Your task to perform on an android device: move an email to a new category in the gmail app Image 0: 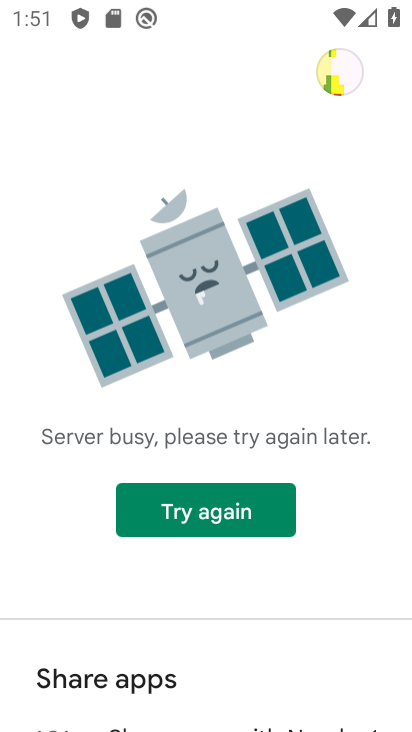
Step 0: press home button
Your task to perform on an android device: move an email to a new category in the gmail app Image 1: 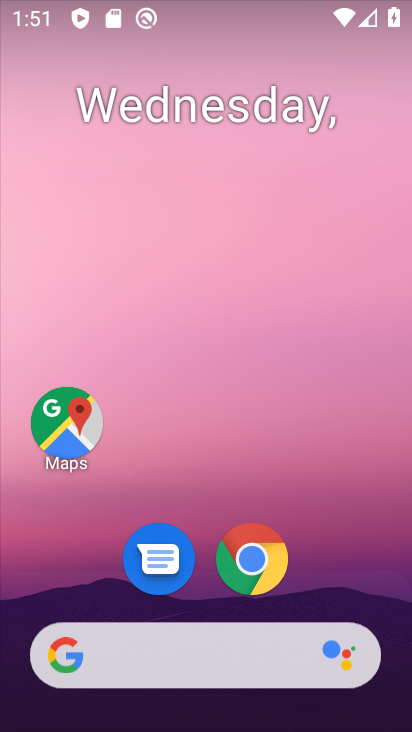
Step 1: drag from (351, 606) to (289, 61)
Your task to perform on an android device: move an email to a new category in the gmail app Image 2: 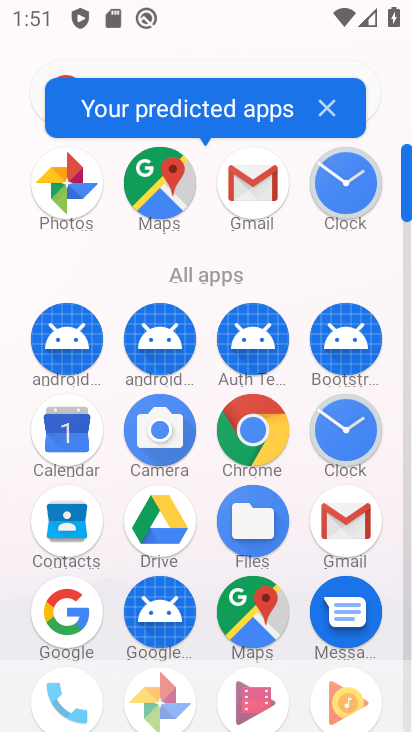
Step 2: click (225, 202)
Your task to perform on an android device: move an email to a new category in the gmail app Image 3: 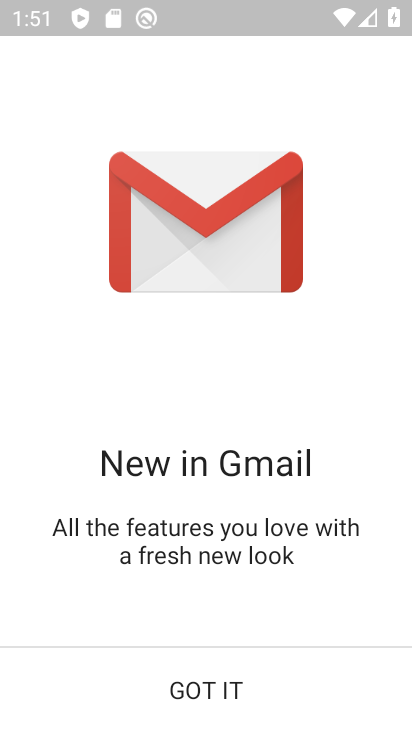
Step 3: click (213, 664)
Your task to perform on an android device: move an email to a new category in the gmail app Image 4: 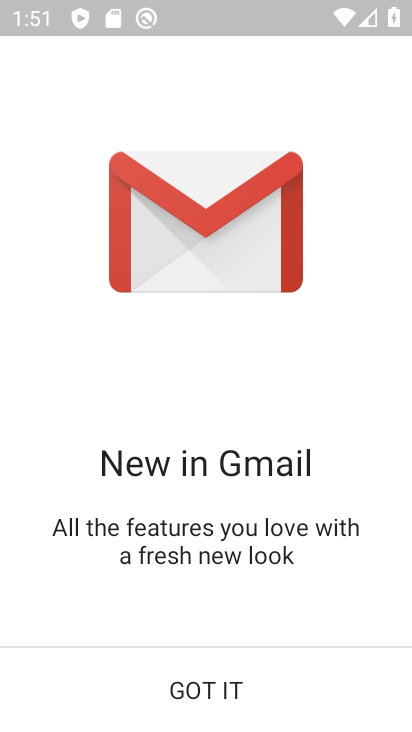
Step 4: click (213, 664)
Your task to perform on an android device: move an email to a new category in the gmail app Image 5: 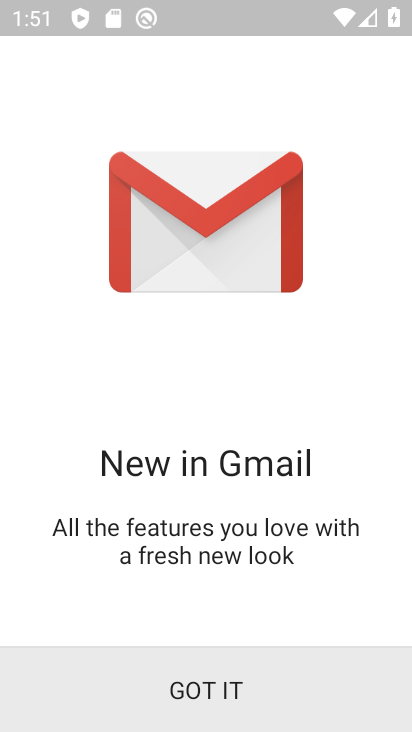
Step 5: click (213, 664)
Your task to perform on an android device: move an email to a new category in the gmail app Image 6: 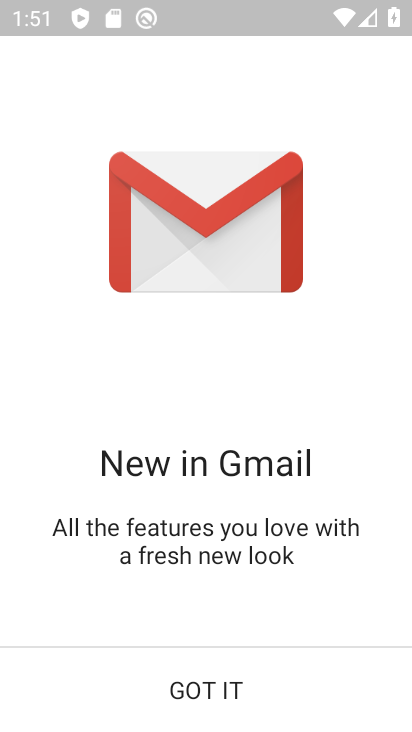
Step 6: click (213, 664)
Your task to perform on an android device: move an email to a new category in the gmail app Image 7: 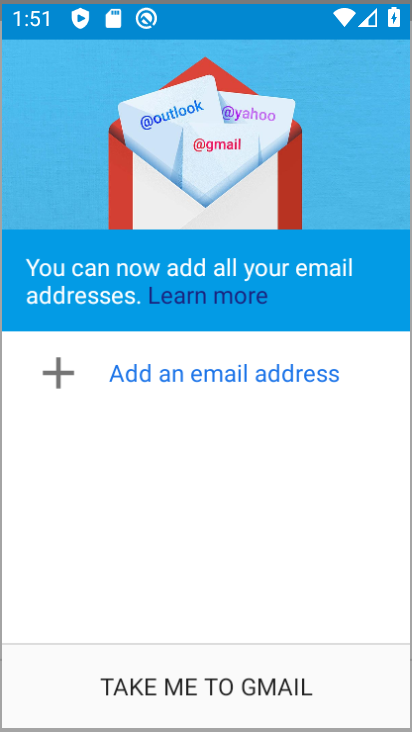
Step 7: click (213, 664)
Your task to perform on an android device: move an email to a new category in the gmail app Image 8: 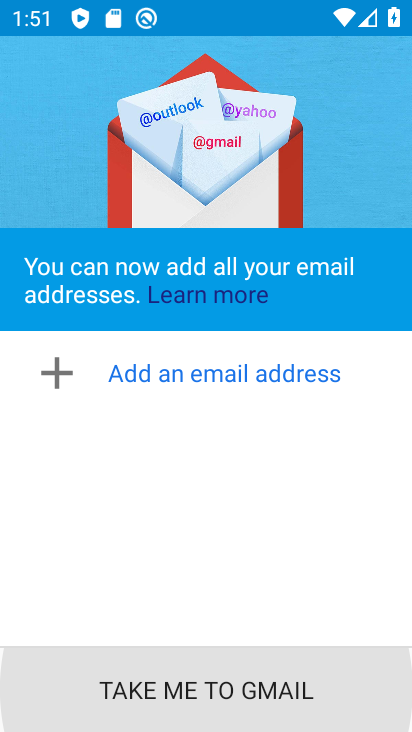
Step 8: click (213, 664)
Your task to perform on an android device: move an email to a new category in the gmail app Image 9: 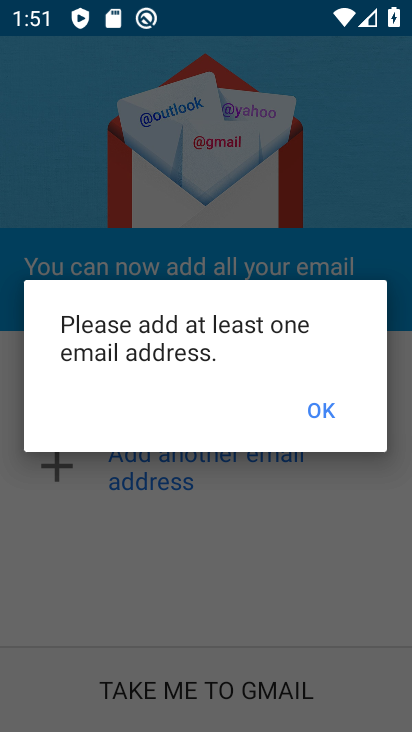
Step 9: click (325, 615)
Your task to perform on an android device: move an email to a new category in the gmail app Image 10: 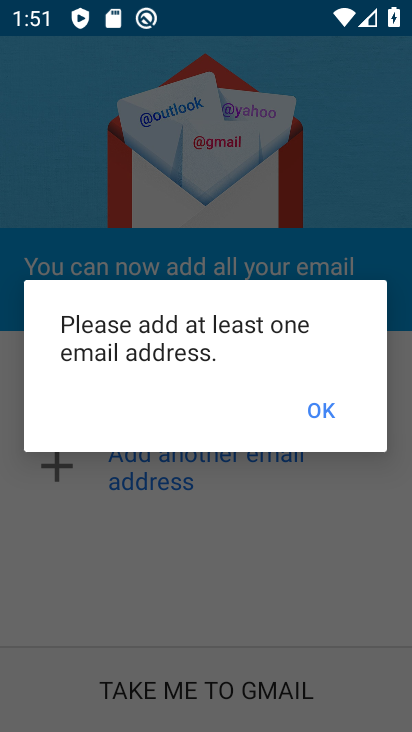
Step 10: click (317, 418)
Your task to perform on an android device: move an email to a new category in the gmail app Image 11: 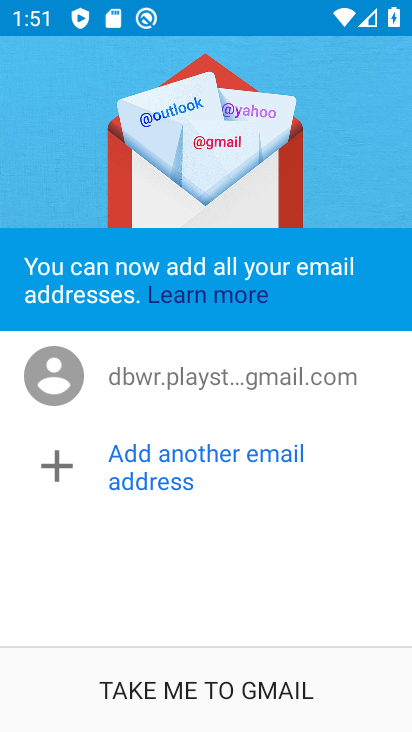
Step 11: click (261, 691)
Your task to perform on an android device: move an email to a new category in the gmail app Image 12: 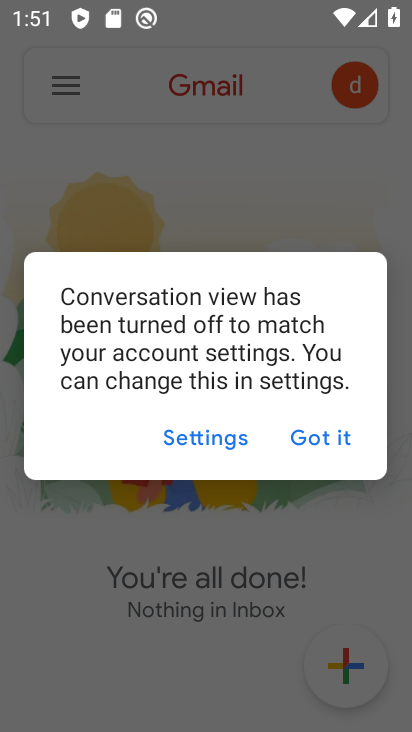
Step 12: click (295, 448)
Your task to perform on an android device: move an email to a new category in the gmail app Image 13: 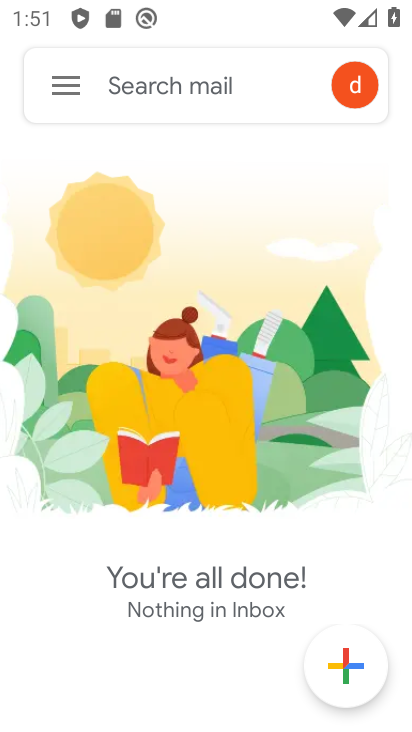
Step 13: click (58, 79)
Your task to perform on an android device: move an email to a new category in the gmail app Image 14: 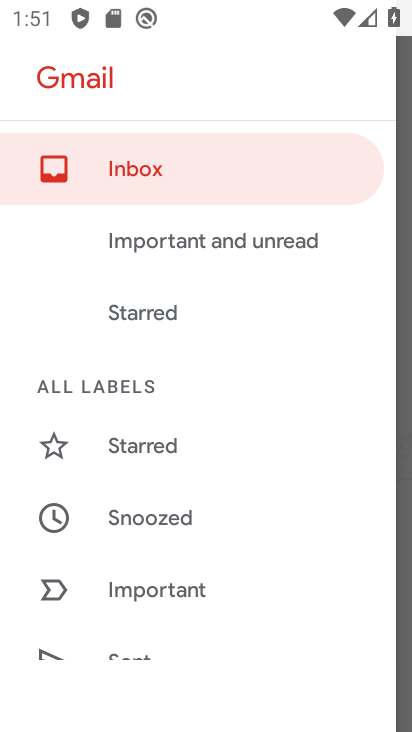
Step 14: task complete